Your task to perform on an android device: Go to internet settings Image 0: 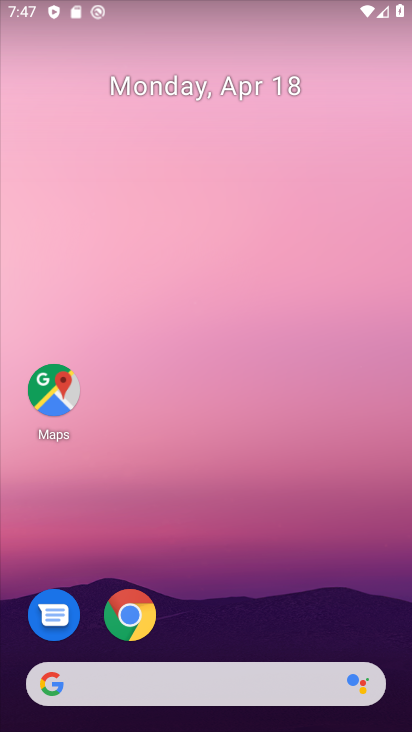
Step 0: drag from (351, 559) to (393, 47)
Your task to perform on an android device: Go to internet settings Image 1: 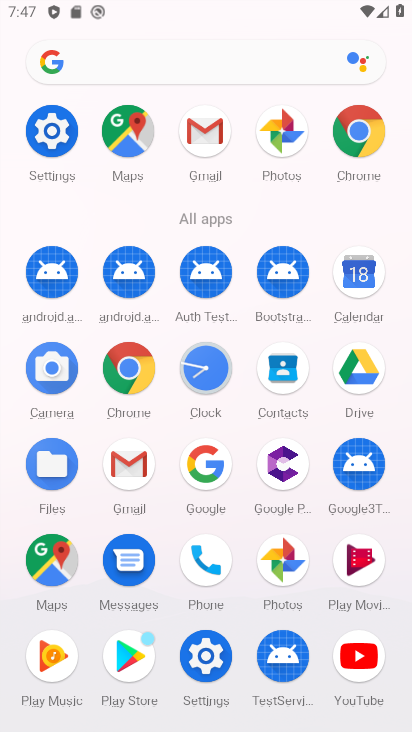
Step 1: click (43, 130)
Your task to perform on an android device: Go to internet settings Image 2: 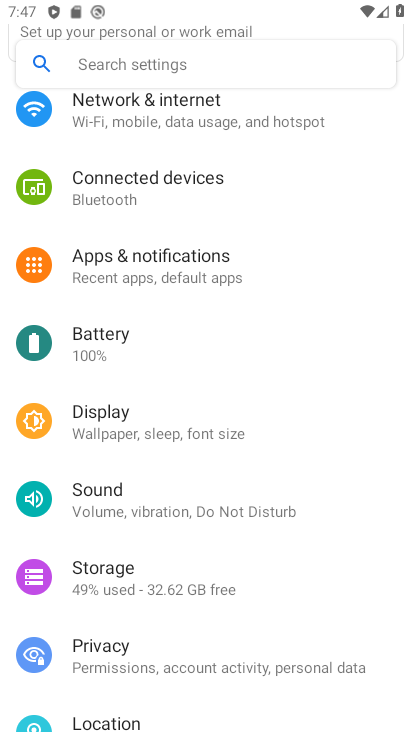
Step 2: click (236, 115)
Your task to perform on an android device: Go to internet settings Image 3: 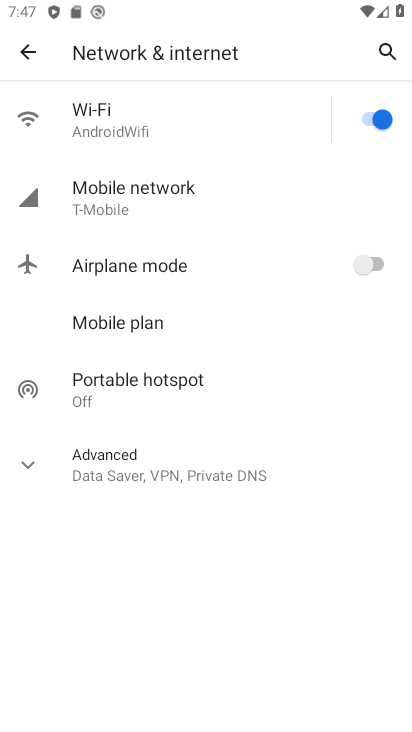
Step 3: click (237, 124)
Your task to perform on an android device: Go to internet settings Image 4: 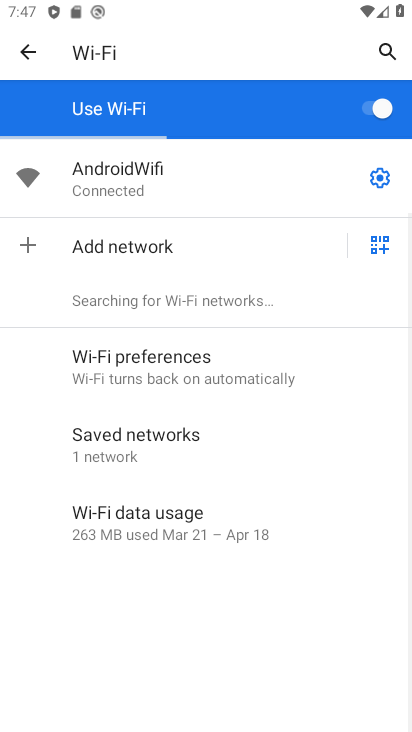
Step 4: task complete